Your task to perform on an android device: Search for sushi restaurants on Maps Image 0: 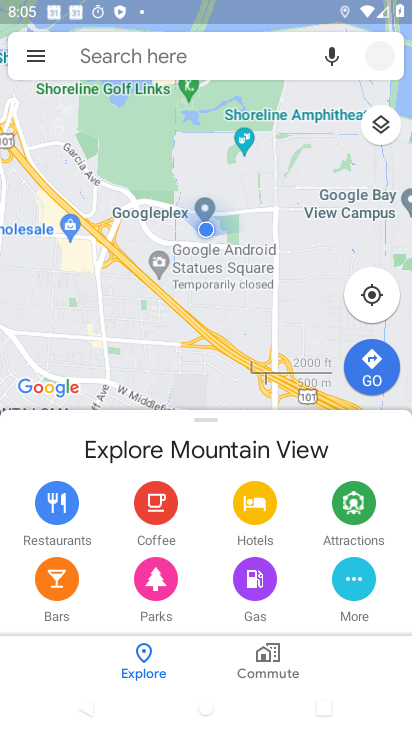
Step 0: click (72, 57)
Your task to perform on an android device: Search for sushi restaurants on Maps Image 1: 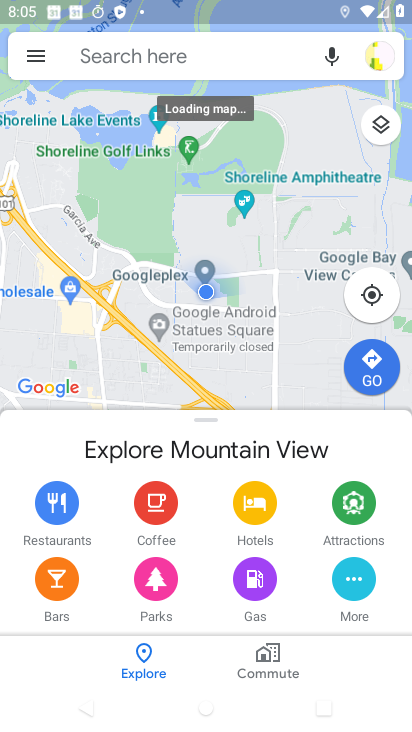
Step 1: click (83, 55)
Your task to perform on an android device: Search for sushi restaurants on Maps Image 2: 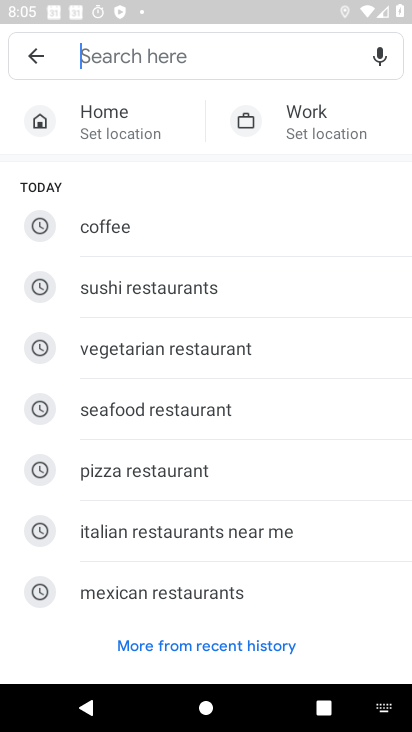
Step 2: type "sushi restaurant"
Your task to perform on an android device: Search for sushi restaurants on Maps Image 3: 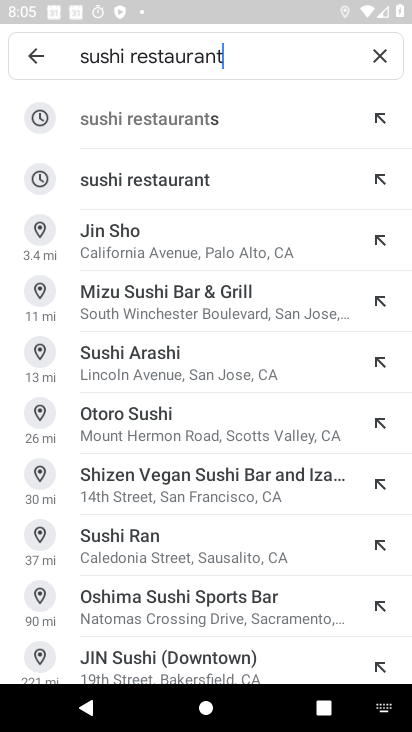
Step 3: click (157, 121)
Your task to perform on an android device: Search for sushi restaurants on Maps Image 4: 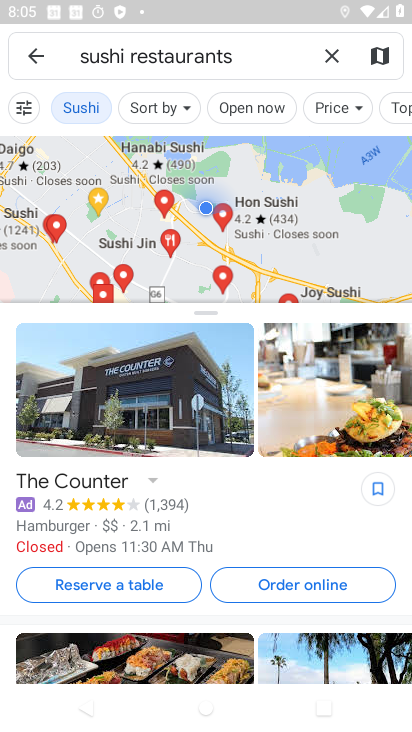
Step 4: task complete